Your task to perform on an android device: Show me popular games on the Play Store Image 0: 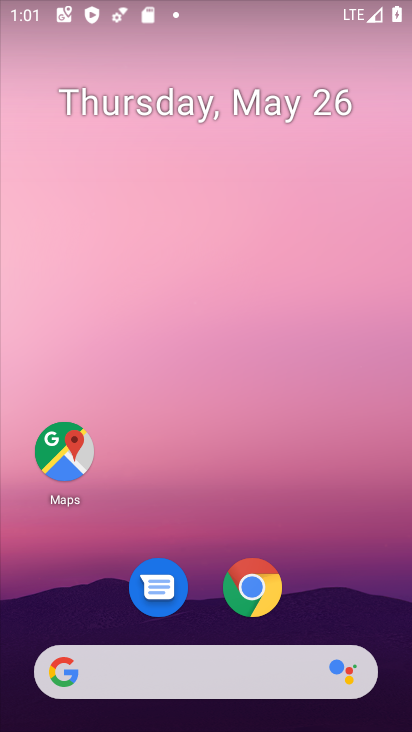
Step 0: drag from (367, 565) to (363, 154)
Your task to perform on an android device: Show me popular games on the Play Store Image 1: 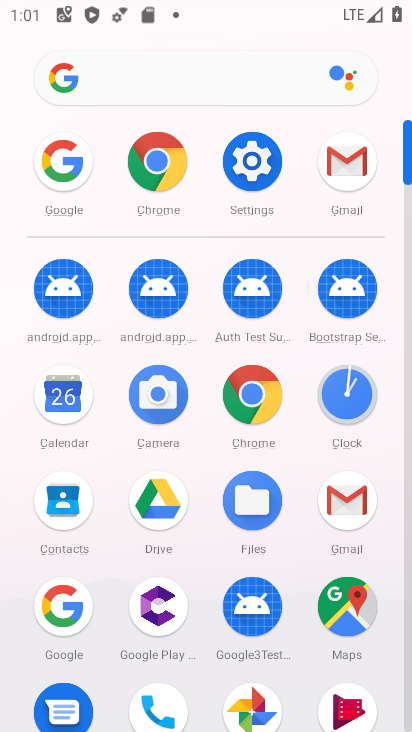
Step 1: drag from (283, 644) to (299, 386)
Your task to perform on an android device: Show me popular games on the Play Store Image 2: 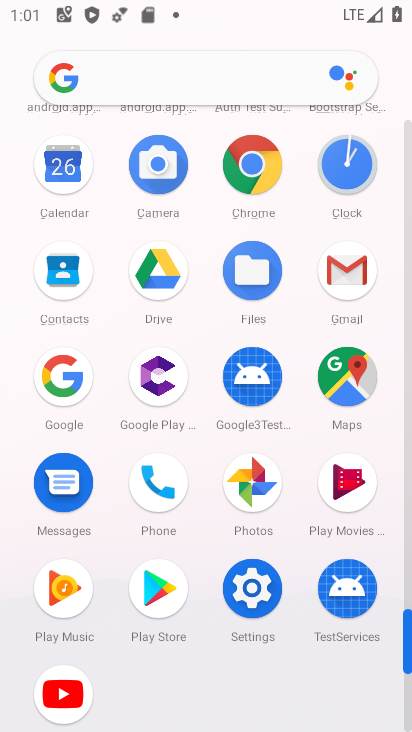
Step 2: drag from (283, 643) to (287, 446)
Your task to perform on an android device: Show me popular games on the Play Store Image 3: 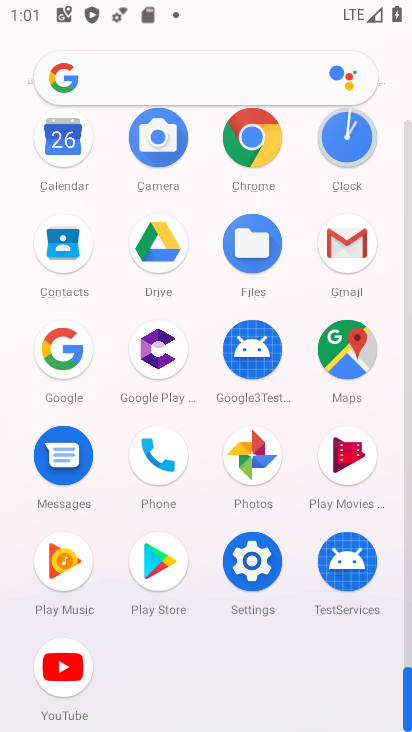
Step 3: click (154, 583)
Your task to perform on an android device: Show me popular games on the Play Store Image 4: 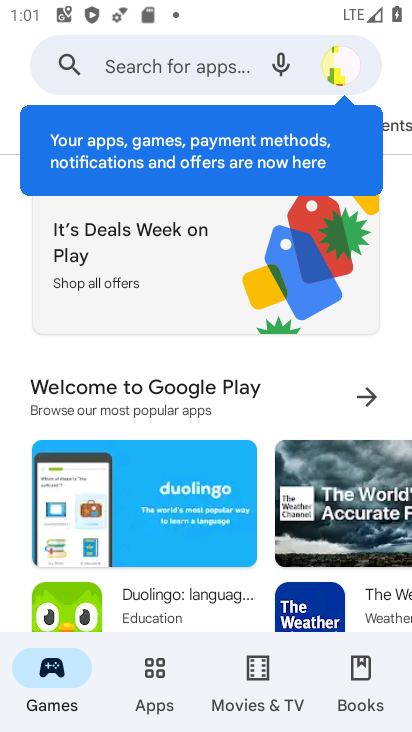
Step 4: task complete